Your task to perform on an android device: Open internet settings Image 0: 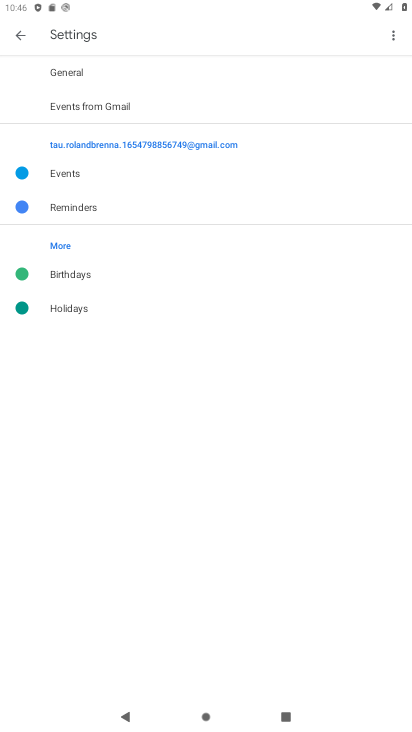
Step 0: press home button
Your task to perform on an android device: Open internet settings Image 1: 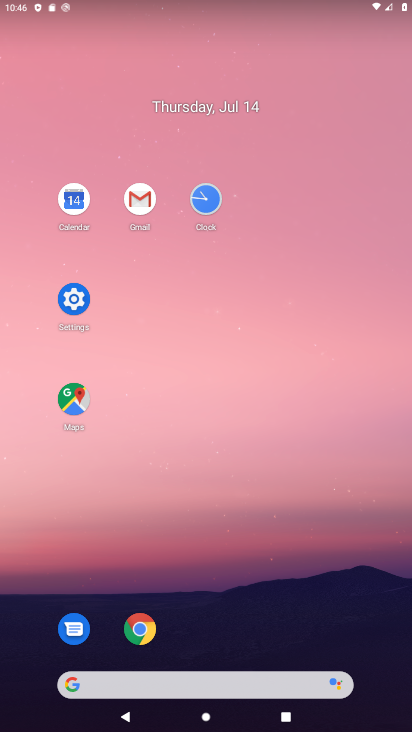
Step 1: click (76, 294)
Your task to perform on an android device: Open internet settings Image 2: 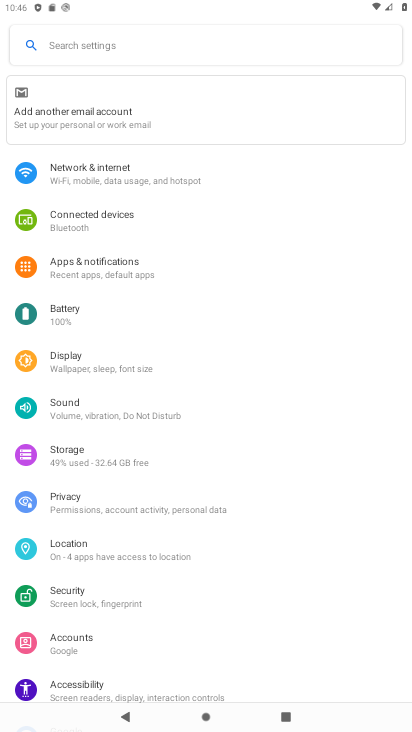
Step 2: click (168, 187)
Your task to perform on an android device: Open internet settings Image 3: 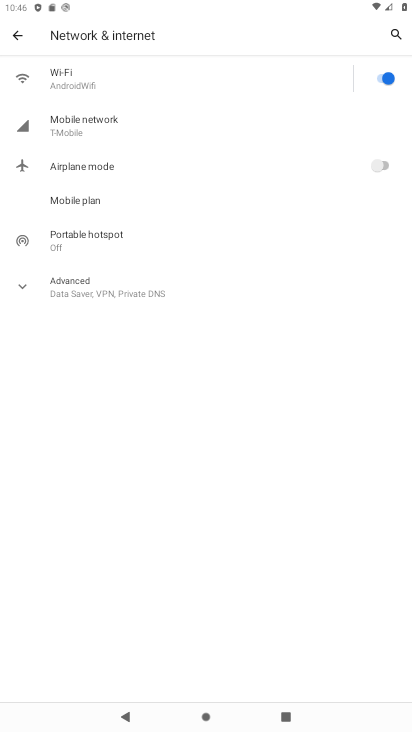
Step 3: task complete